Your task to perform on an android device: Open Yahoo.com Image 0: 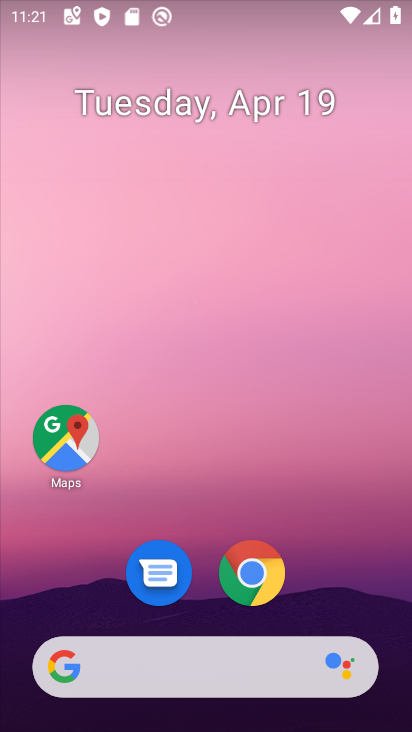
Step 0: click (275, 576)
Your task to perform on an android device: Open Yahoo.com Image 1: 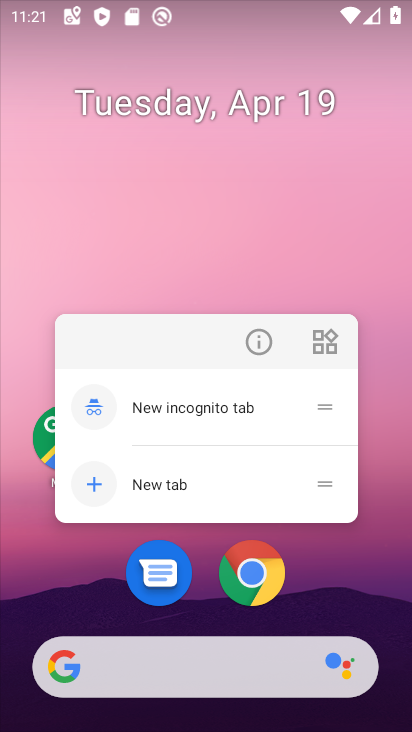
Step 1: click (273, 586)
Your task to perform on an android device: Open Yahoo.com Image 2: 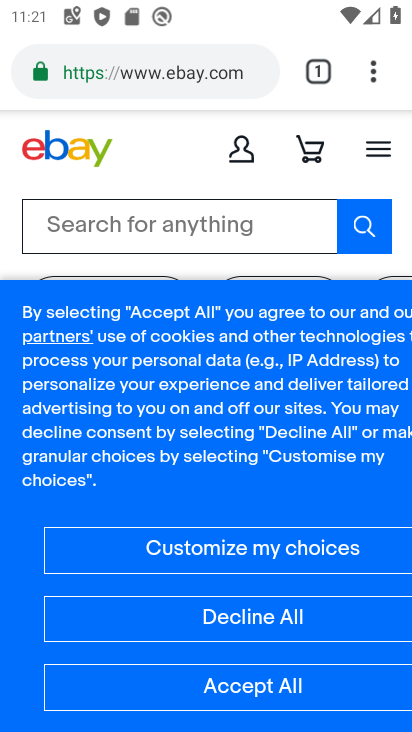
Step 2: click (142, 78)
Your task to perform on an android device: Open Yahoo.com Image 3: 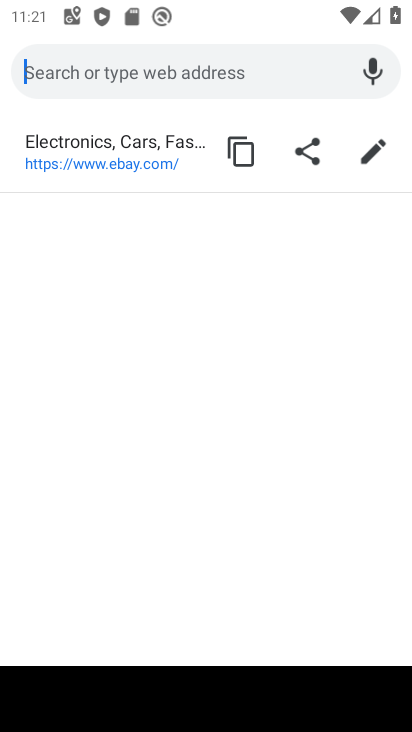
Step 3: type "yahoo.com"
Your task to perform on an android device: Open Yahoo.com Image 4: 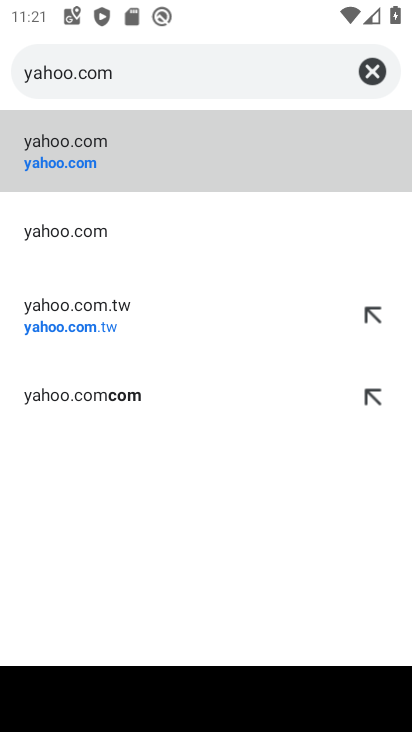
Step 4: click (56, 172)
Your task to perform on an android device: Open Yahoo.com Image 5: 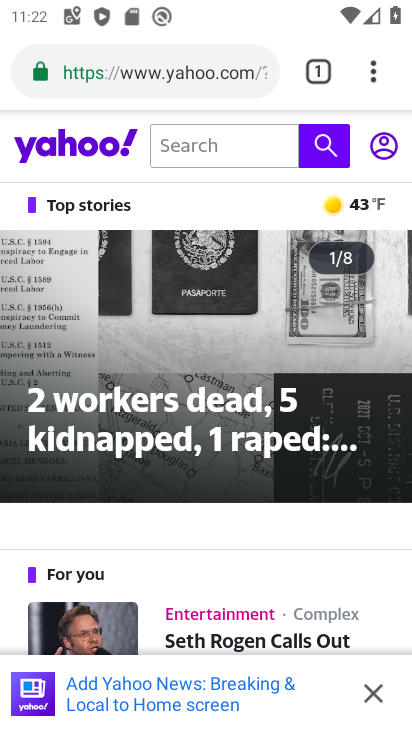
Step 5: task complete